Your task to perform on an android device: change timer sound Image 0: 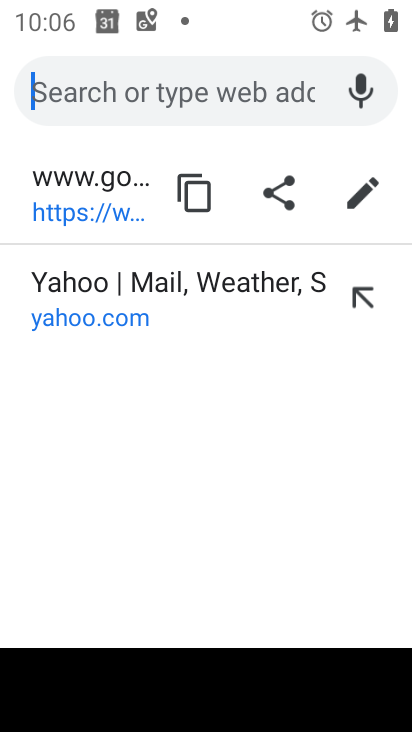
Step 0: press home button
Your task to perform on an android device: change timer sound Image 1: 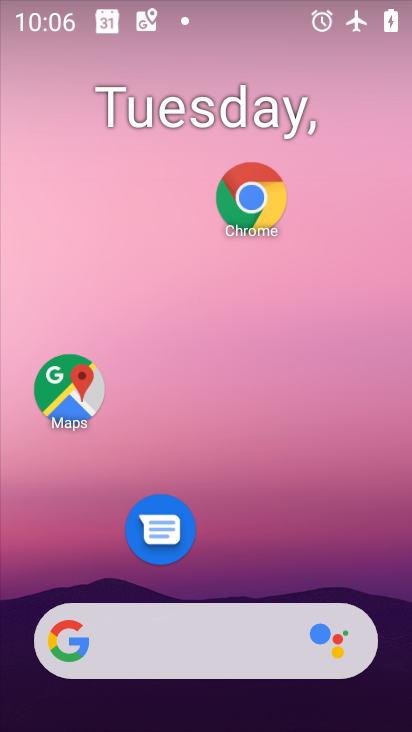
Step 1: drag from (319, 552) to (319, 131)
Your task to perform on an android device: change timer sound Image 2: 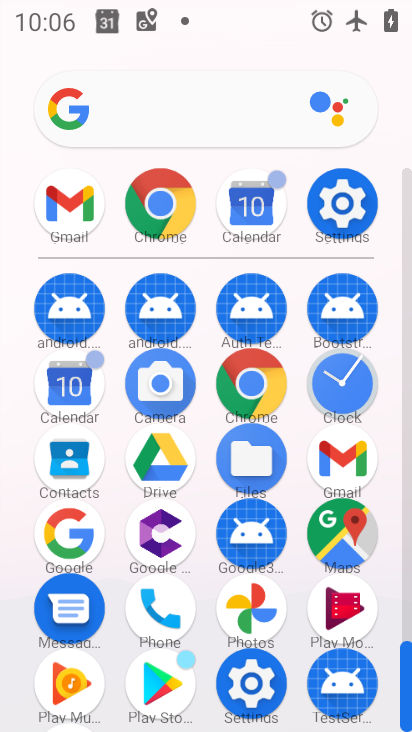
Step 2: click (337, 361)
Your task to perform on an android device: change timer sound Image 3: 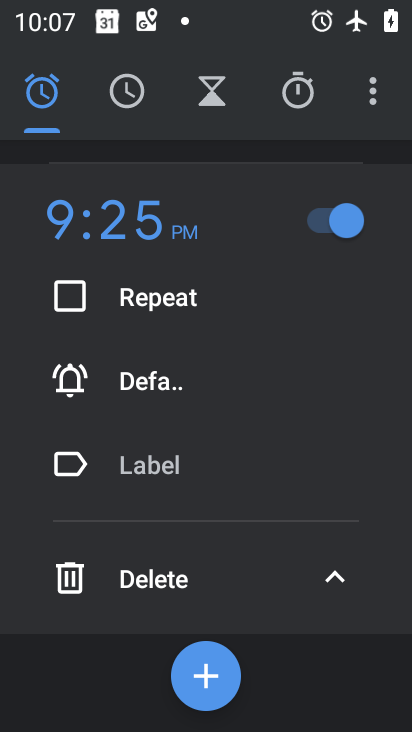
Step 3: click (365, 101)
Your task to perform on an android device: change timer sound Image 4: 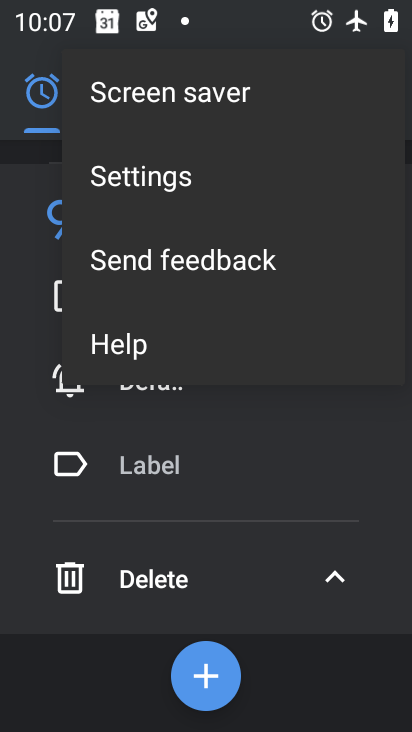
Step 4: click (215, 201)
Your task to perform on an android device: change timer sound Image 5: 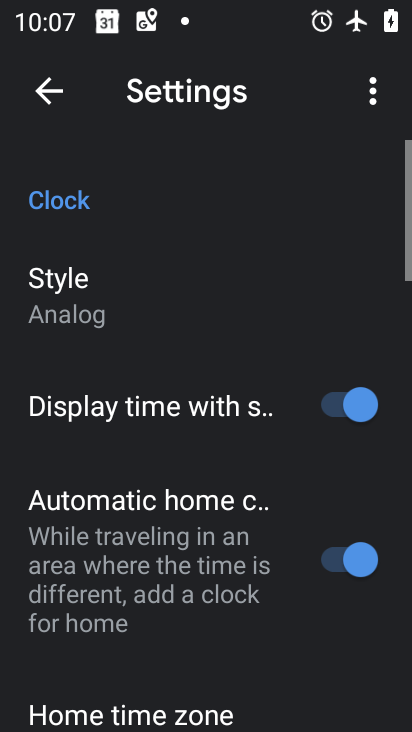
Step 5: drag from (161, 554) to (99, 367)
Your task to perform on an android device: change timer sound Image 6: 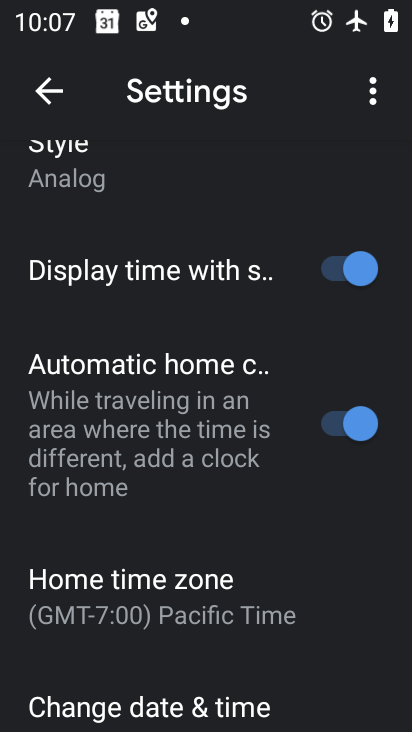
Step 6: click (206, 716)
Your task to perform on an android device: change timer sound Image 7: 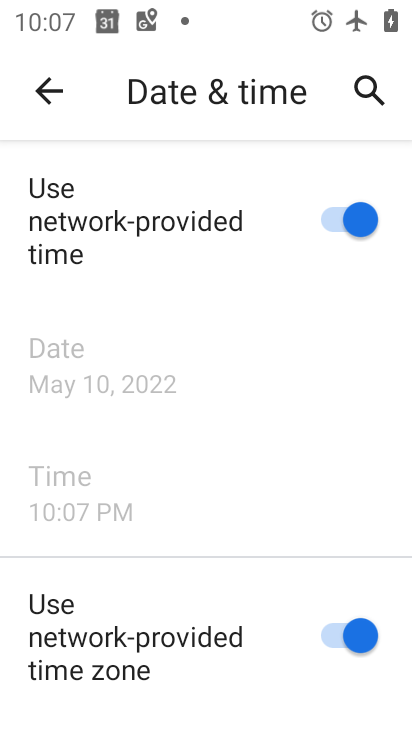
Step 7: task complete